Your task to perform on an android device: change notification settings in the gmail app Image 0: 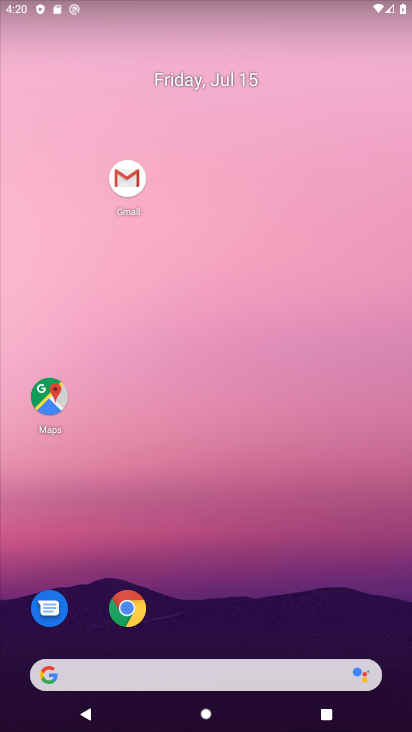
Step 0: click (135, 164)
Your task to perform on an android device: change notification settings in the gmail app Image 1: 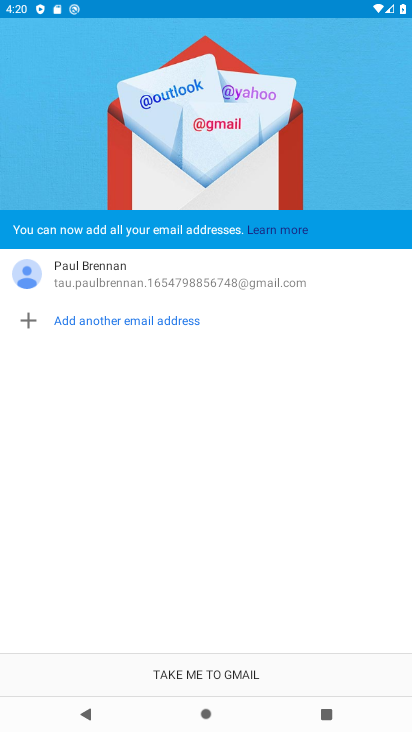
Step 1: click (242, 670)
Your task to perform on an android device: change notification settings in the gmail app Image 2: 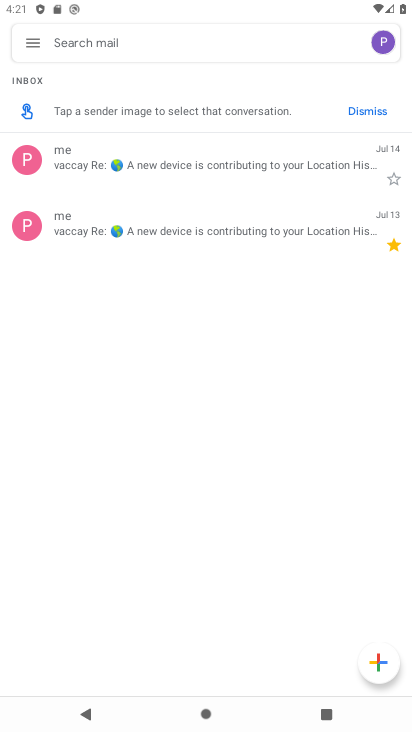
Step 2: click (26, 36)
Your task to perform on an android device: change notification settings in the gmail app Image 3: 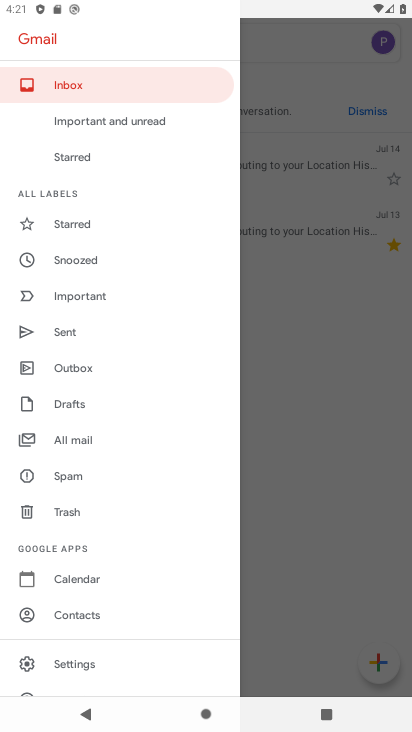
Step 3: click (94, 659)
Your task to perform on an android device: change notification settings in the gmail app Image 4: 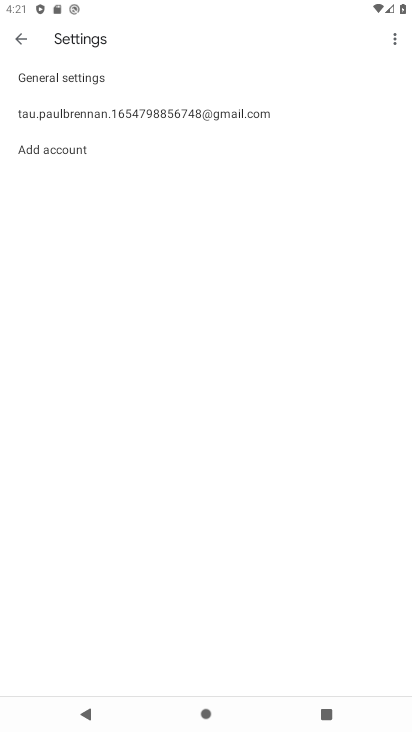
Step 4: click (81, 116)
Your task to perform on an android device: change notification settings in the gmail app Image 5: 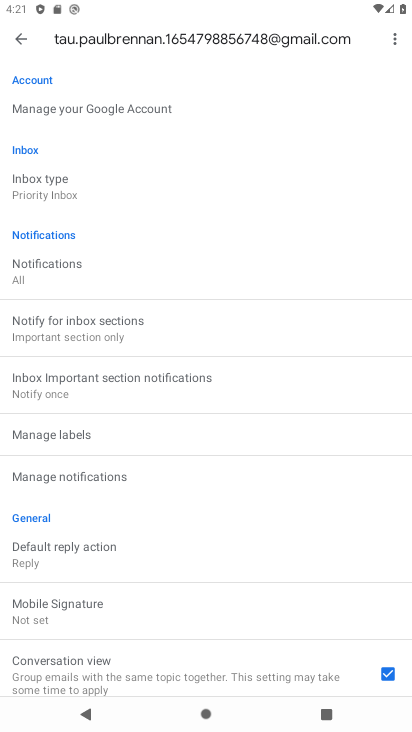
Step 5: click (131, 259)
Your task to perform on an android device: change notification settings in the gmail app Image 6: 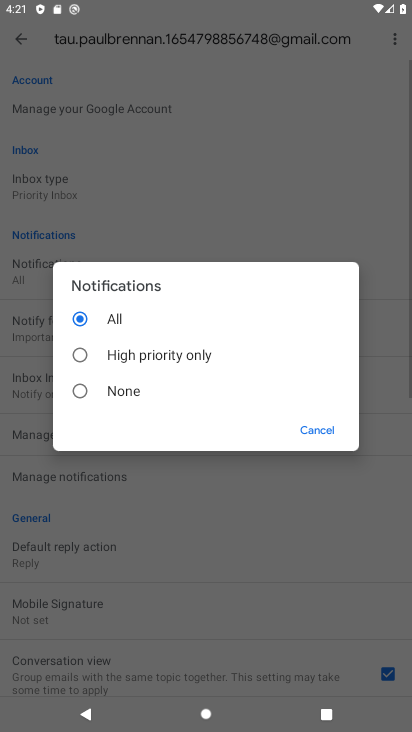
Step 6: click (150, 351)
Your task to perform on an android device: change notification settings in the gmail app Image 7: 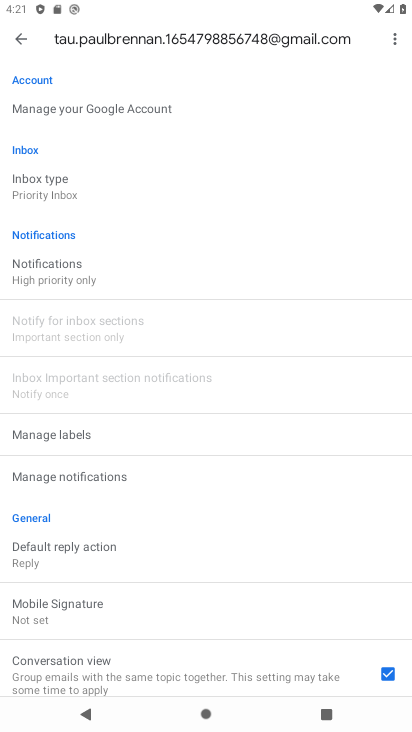
Step 7: task complete